Your task to perform on an android device: Show me productivity apps on the Play Store Image 0: 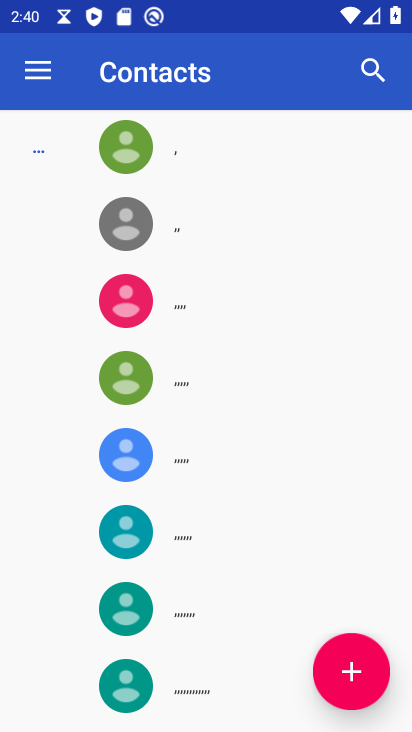
Step 0: press home button
Your task to perform on an android device: Show me productivity apps on the Play Store Image 1: 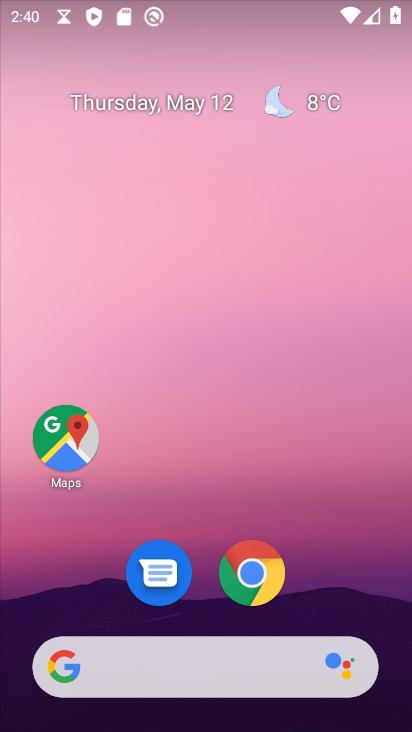
Step 1: drag from (329, 543) to (316, 97)
Your task to perform on an android device: Show me productivity apps on the Play Store Image 2: 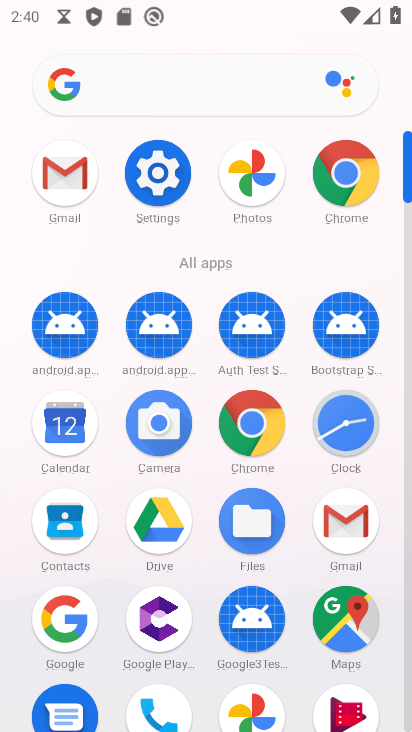
Step 2: drag from (282, 245) to (282, 60)
Your task to perform on an android device: Show me productivity apps on the Play Store Image 3: 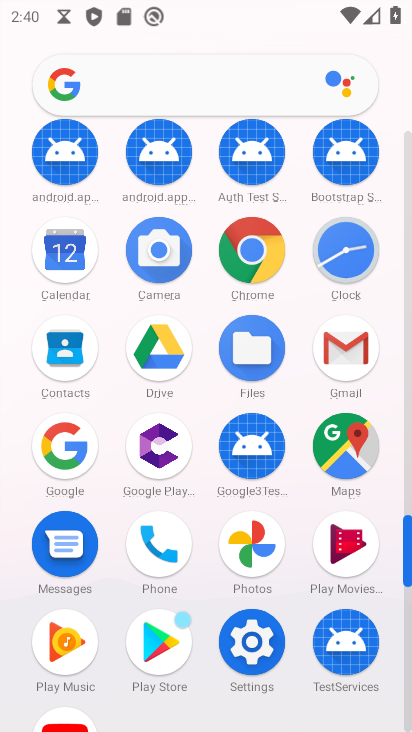
Step 3: click (159, 645)
Your task to perform on an android device: Show me productivity apps on the Play Store Image 4: 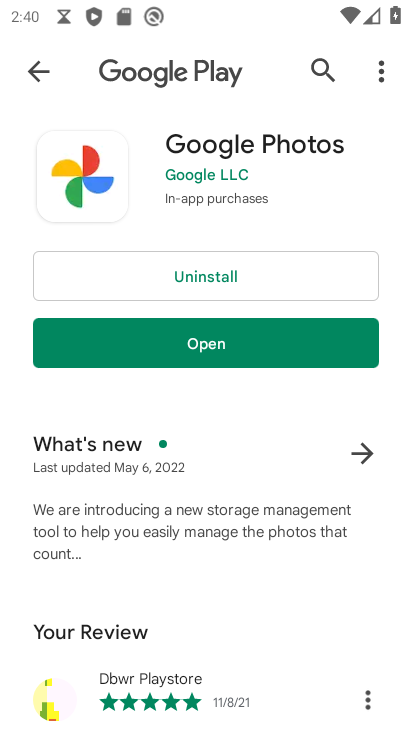
Step 4: click (43, 69)
Your task to perform on an android device: Show me productivity apps on the Play Store Image 5: 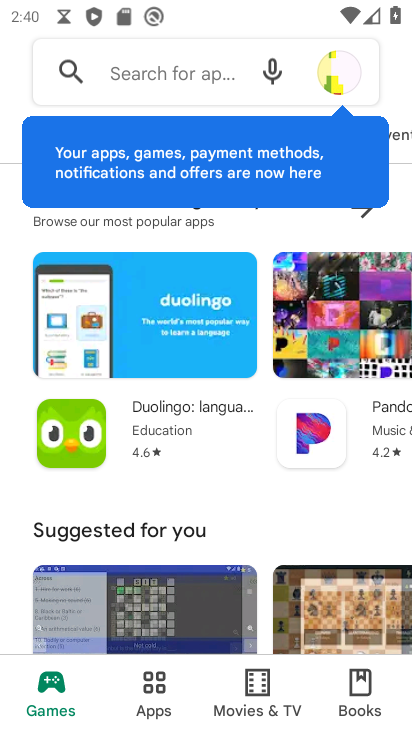
Step 5: click (239, 84)
Your task to perform on an android device: Show me productivity apps on the Play Store Image 6: 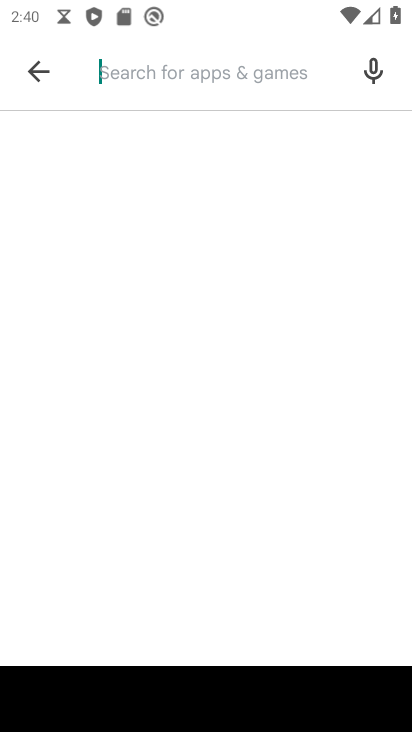
Step 6: type "productivity apps "
Your task to perform on an android device: Show me productivity apps on the Play Store Image 7: 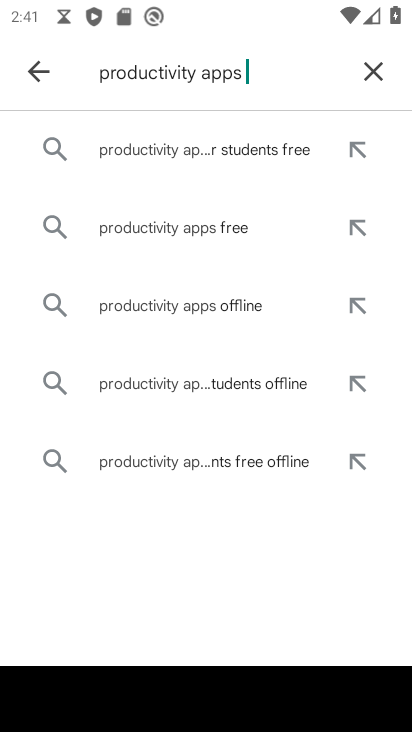
Step 7: click (205, 230)
Your task to perform on an android device: Show me productivity apps on the Play Store Image 8: 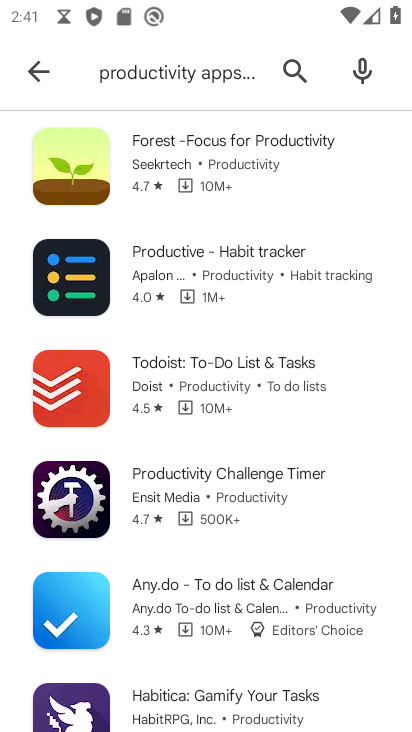
Step 8: task complete